Your task to perform on an android device: toggle notification dots Image 0: 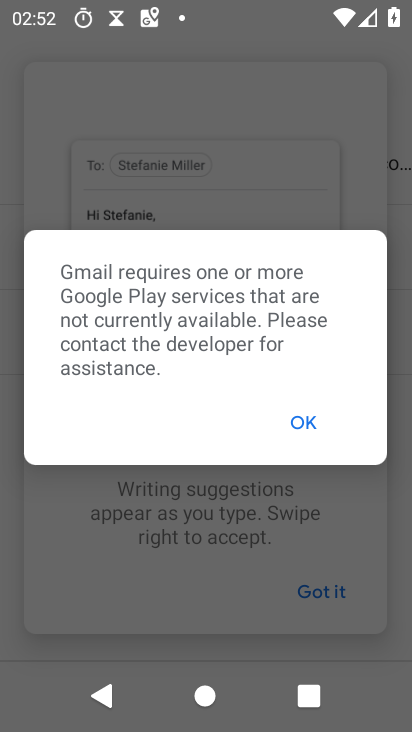
Step 0: press home button
Your task to perform on an android device: toggle notification dots Image 1: 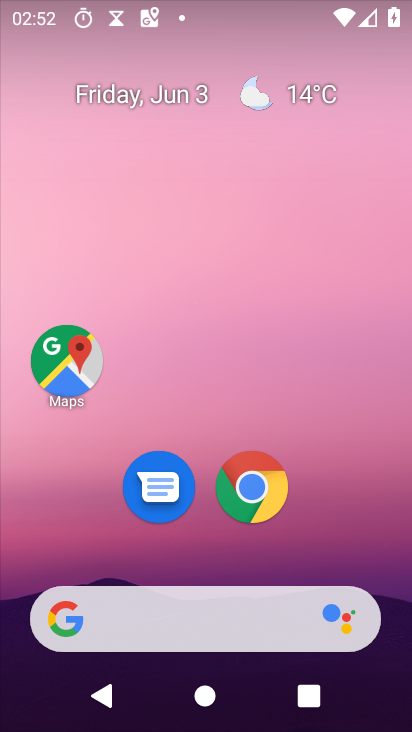
Step 1: drag from (366, 520) to (166, 59)
Your task to perform on an android device: toggle notification dots Image 2: 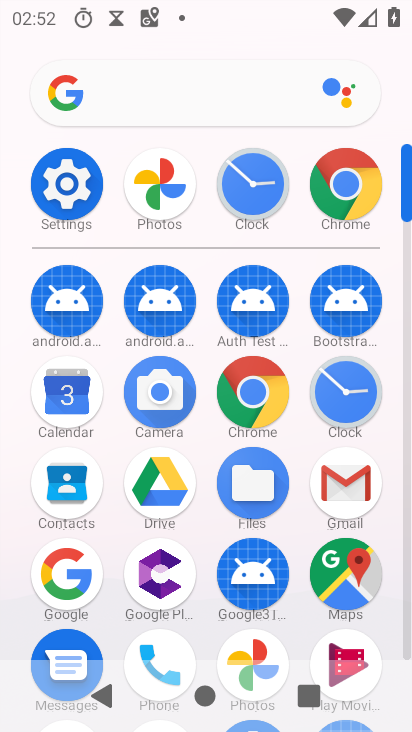
Step 2: click (71, 179)
Your task to perform on an android device: toggle notification dots Image 3: 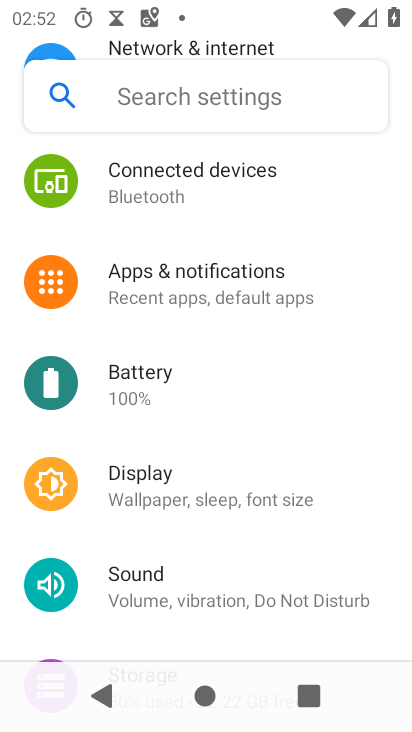
Step 3: click (215, 298)
Your task to perform on an android device: toggle notification dots Image 4: 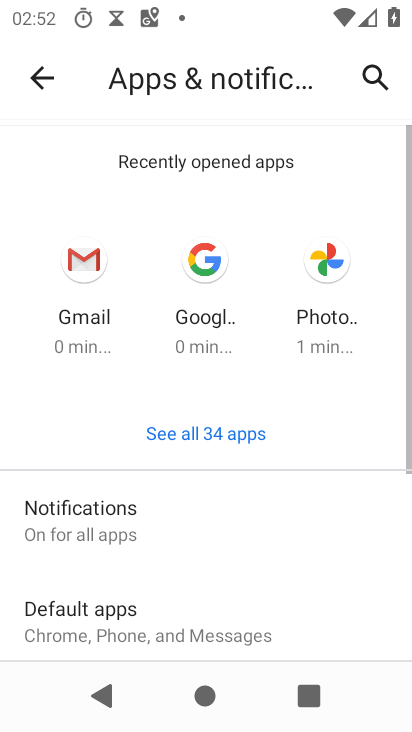
Step 4: drag from (297, 559) to (210, 40)
Your task to perform on an android device: toggle notification dots Image 5: 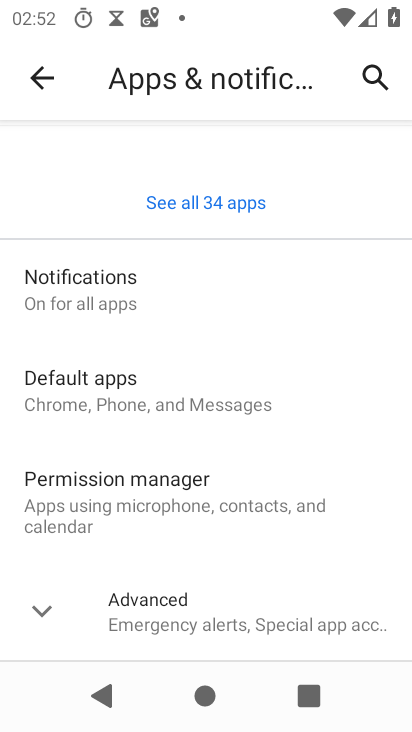
Step 5: click (187, 282)
Your task to perform on an android device: toggle notification dots Image 6: 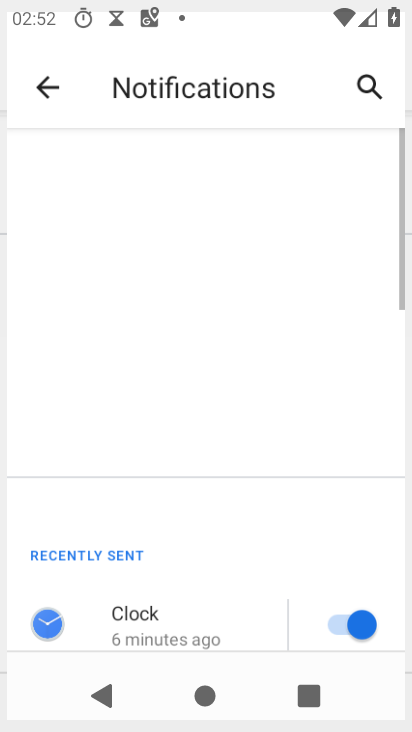
Step 6: drag from (319, 490) to (247, 85)
Your task to perform on an android device: toggle notification dots Image 7: 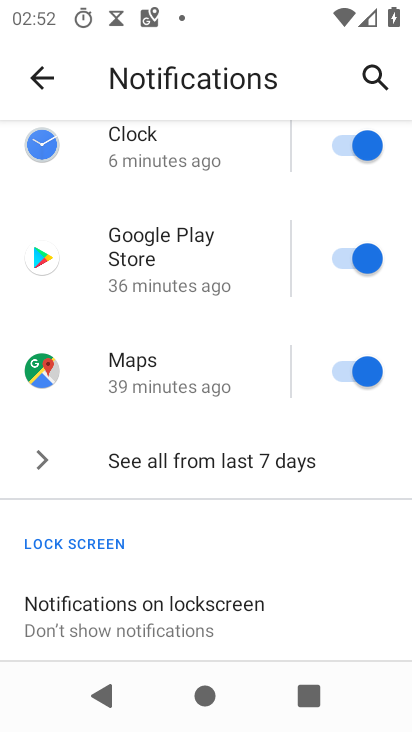
Step 7: click (219, 598)
Your task to perform on an android device: toggle notification dots Image 8: 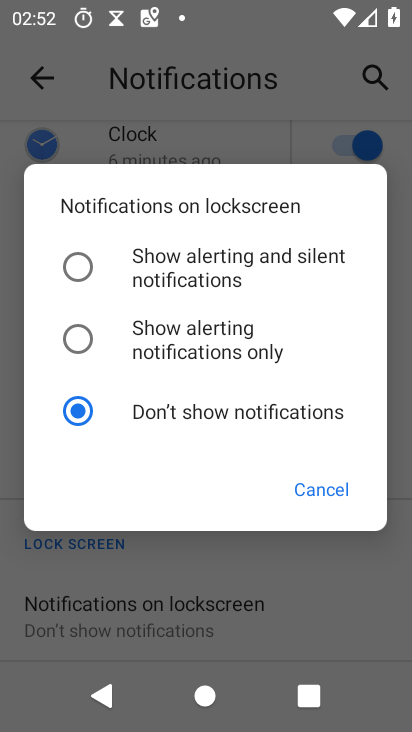
Step 8: press back button
Your task to perform on an android device: toggle notification dots Image 9: 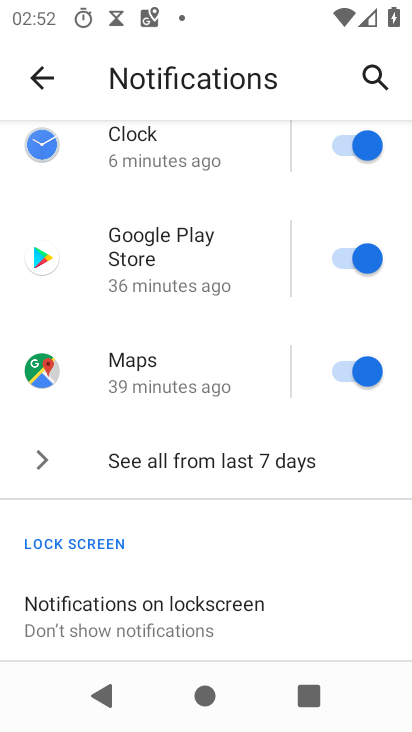
Step 9: click (189, 24)
Your task to perform on an android device: toggle notification dots Image 10: 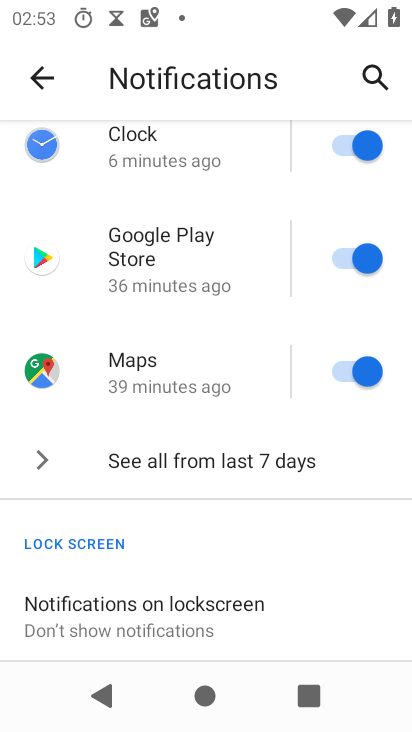
Step 10: drag from (310, 535) to (249, 3)
Your task to perform on an android device: toggle notification dots Image 11: 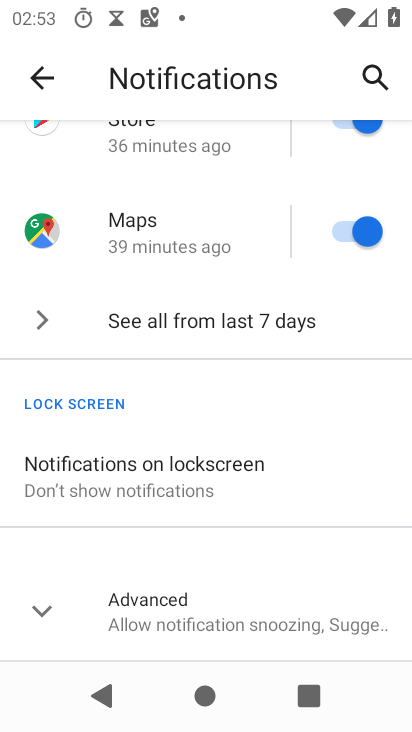
Step 11: click (280, 623)
Your task to perform on an android device: toggle notification dots Image 12: 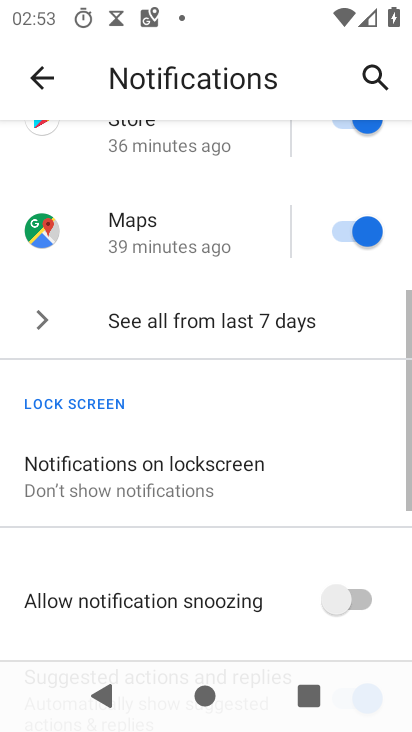
Step 12: drag from (250, 559) to (255, 1)
Your task to perform on an android device: toggle notification dots Image 13: 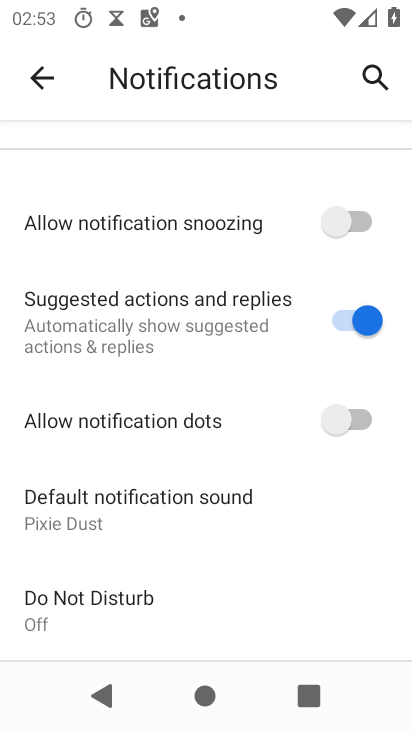
Step 13: click (345, 412)
Your task to perform on an android device: toggle notification dots Image 14: 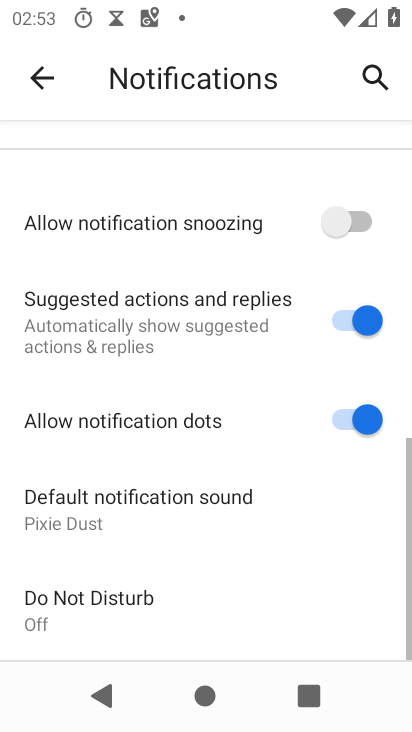
Step 14: task complete